Your task to perform on an android device: turn off translation in the chrome app Image 0: 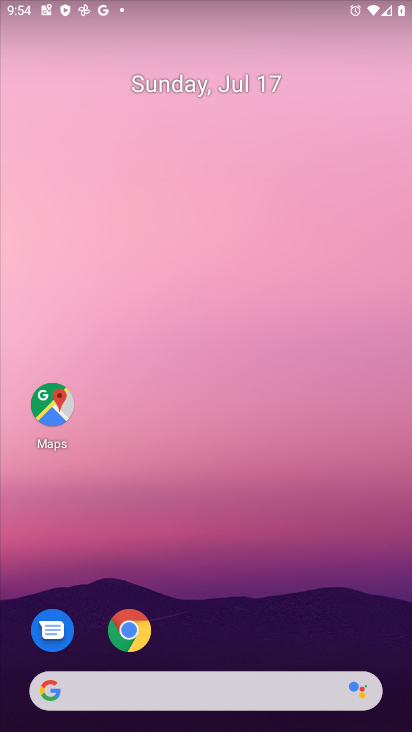
Step 0: click (128, 636)
Your task to perform on an android device: turn off translation in the chrome app Image 1: 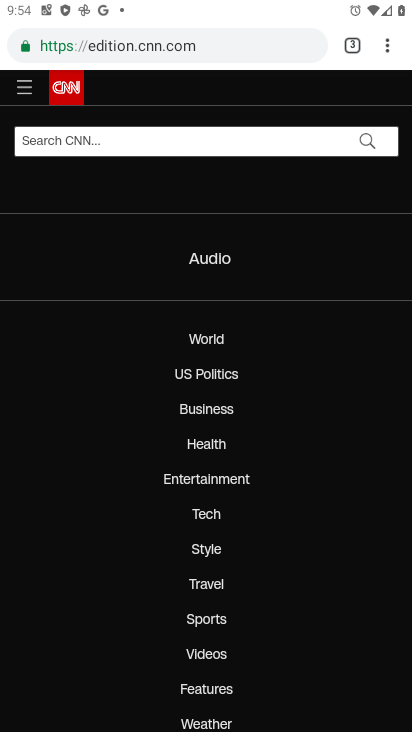
Step 1: click (384, 46)
Your task to perform on an android device: turn off translation in the chrome app Image 2: 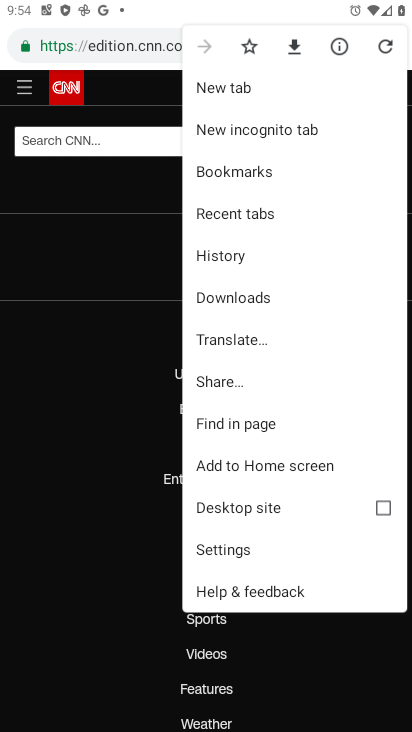
Step 2: click (229, 551)
Your task to perform on an android device: turn off translation in the chrome app Image 3: 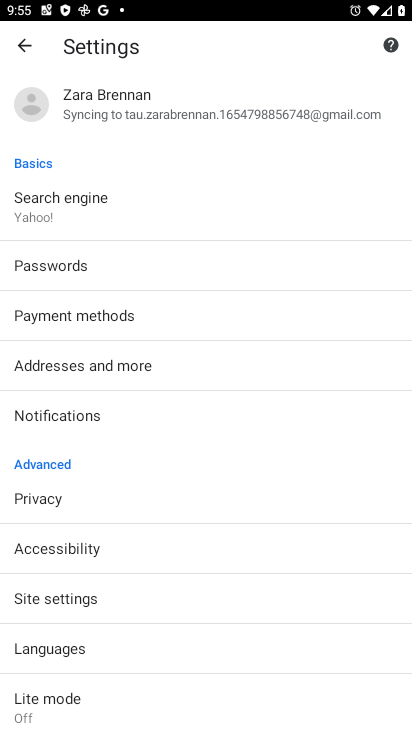
Step 3: click (71, 658)
Your task to perform on an android device: turn off translation in the chrome app Image 4: 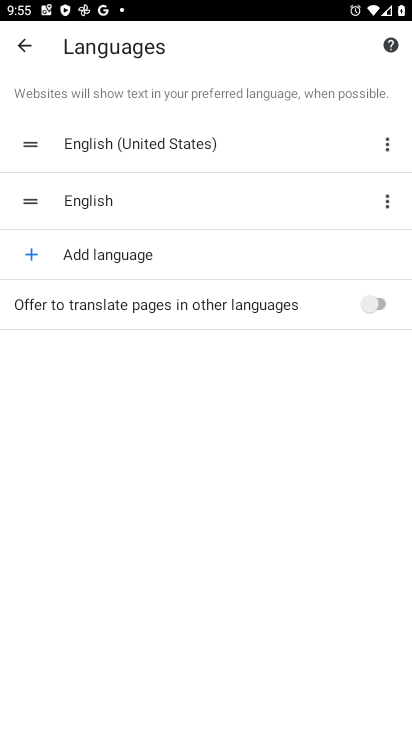
Step 4: task complete